Your task to perform on an android device: Search for vegetarian restaurants on Maps Image 0: 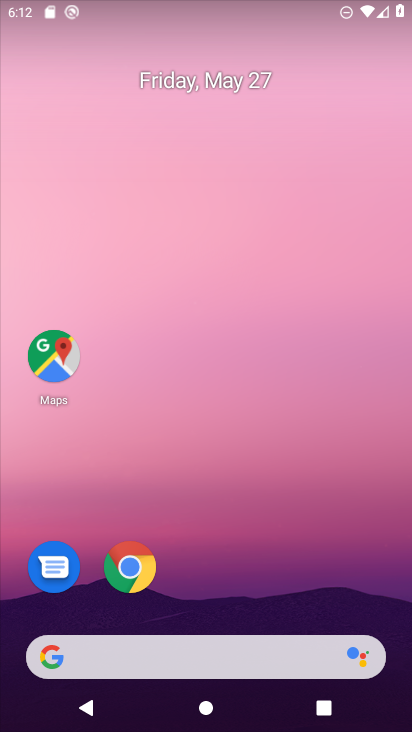
Step 0: click (54, 360)
Your task to perform on an android device: Search for vegetarian restaurants on Maps Image 1: 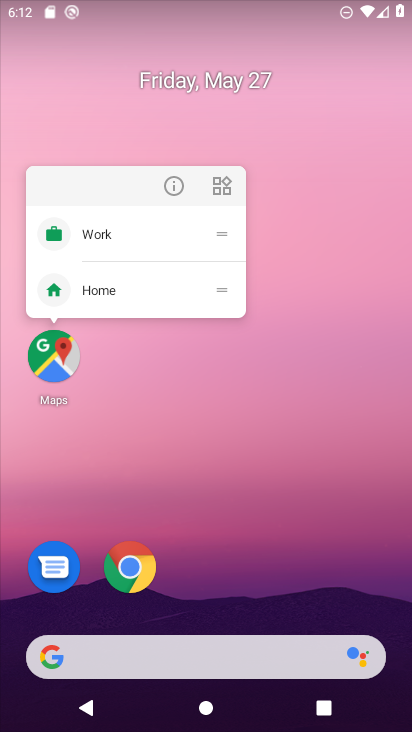
Step 1: click (38, 363)
Your task to perform on an android device: Search for vegetarian restaurants on Maps Image 2: 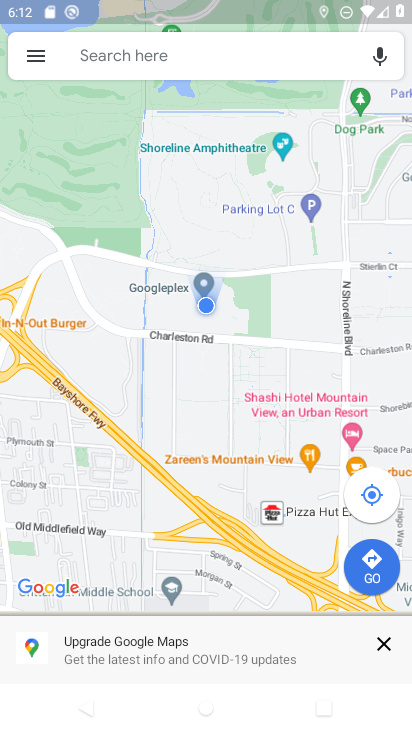
Step 2: click (181, 65)
Your task to perform on an android device: Search for vegetarian restaurants on Maps Image 3: 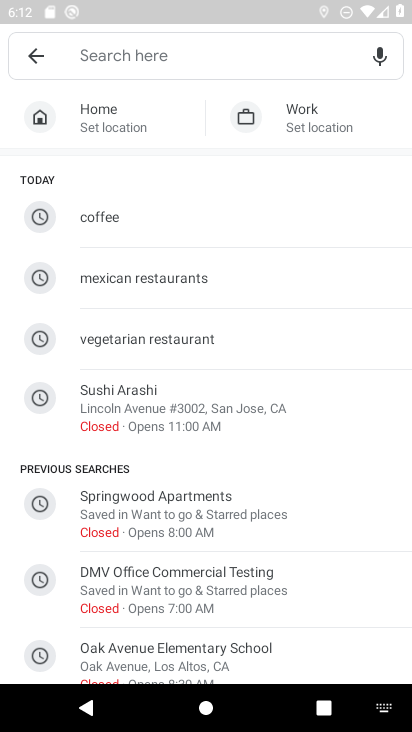
Step 3: click (173, 346)
Your task to perform on an android device: Search for vegetarian restaurants on Maps Image 4: 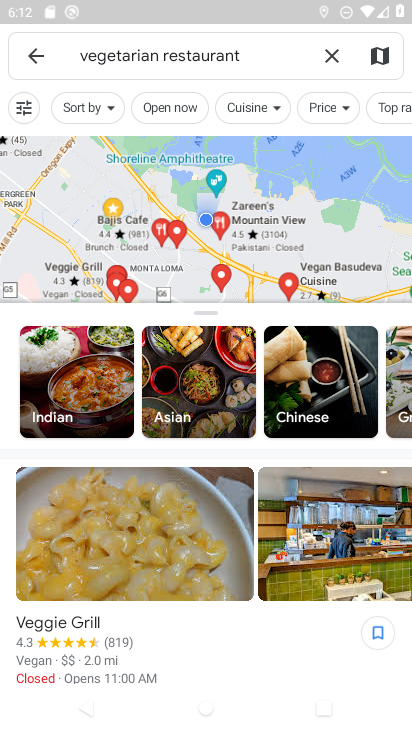
Step 4: task complete